Your task to perform on an android device: check battery use Image 0: 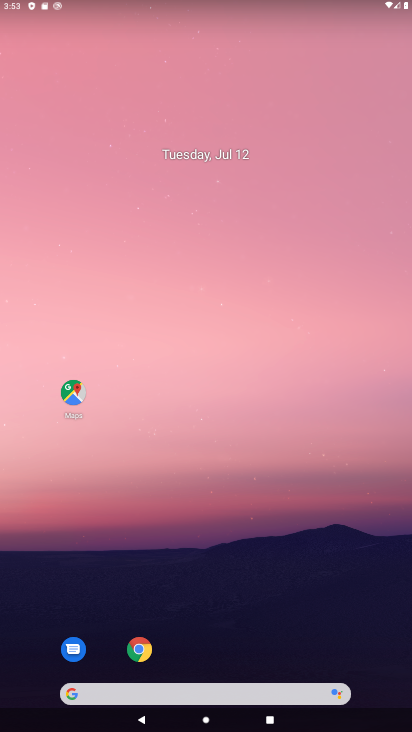
Step 0: press home button
Your task to perform on an android device: check battery use Image 1: 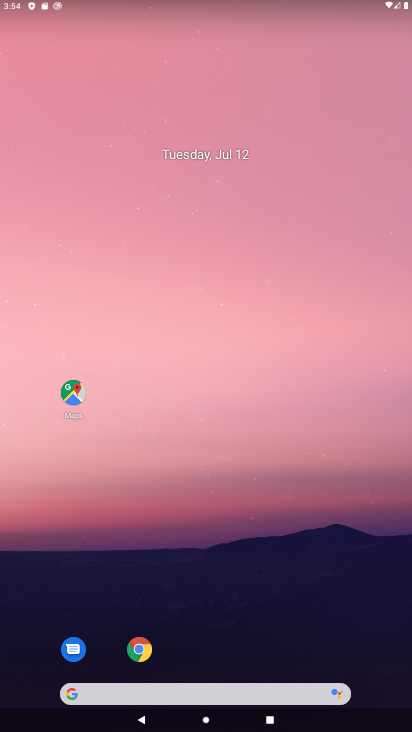
Step 1: drag from (221, 657) to (257, 9)
Your task to perform on an android device: check battery use Image 2: 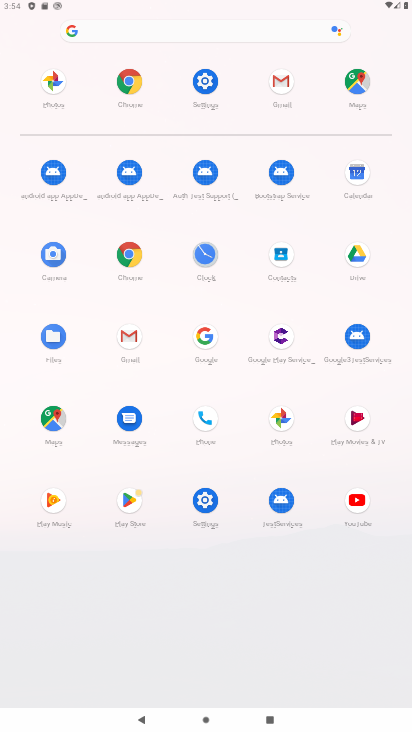
Step 2: click (202, 81)
Your task to perform on an android device: check battery use Image 3: 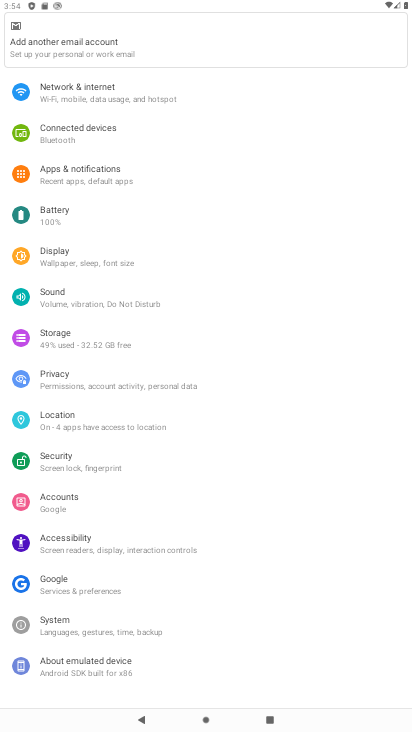
Step 3: click (85, 212)
Your task to perform on an android device: check battery use Image 4: 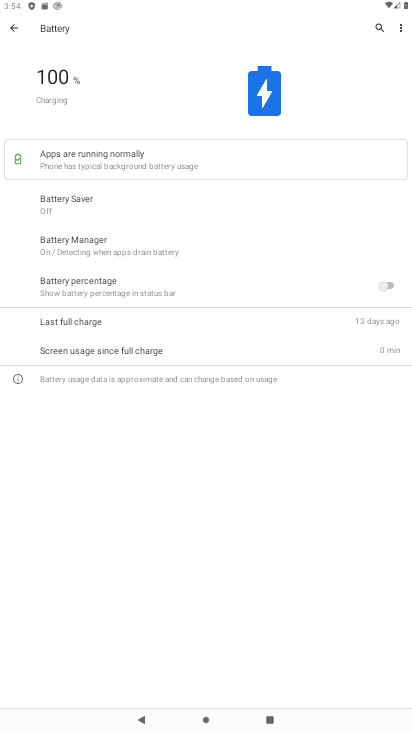
Step 4: click (399, 24)
Your task to perform on an android device: check battery use Image 5: 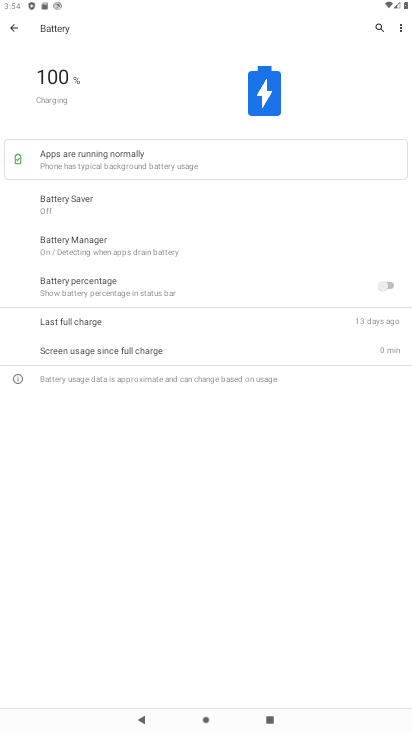
Step 5: click (402, 29)
Your task to perform on an android device: check battery use Image 6: 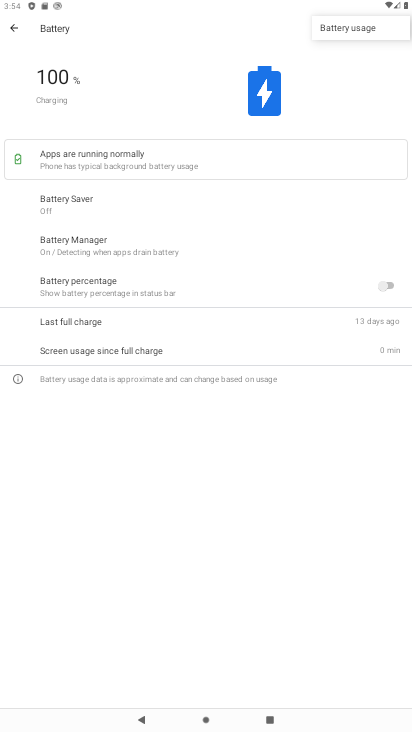
Step 6: click (351, 33)
Your task to perform on an android device: check battery use Image 7: 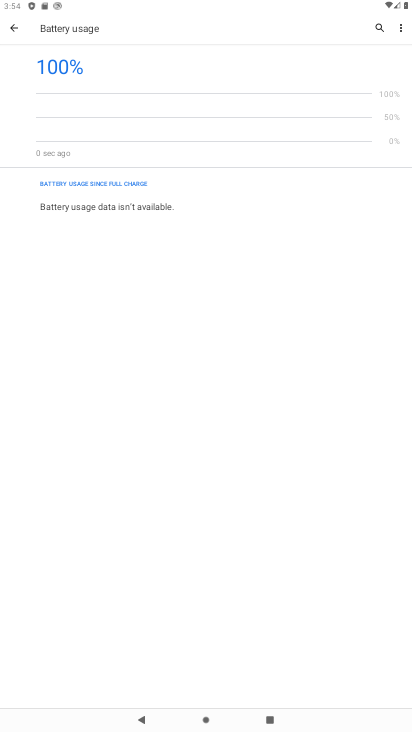
Step 7: task complete